Your task to perform on an android device: find photos in the google photos app Image 0: 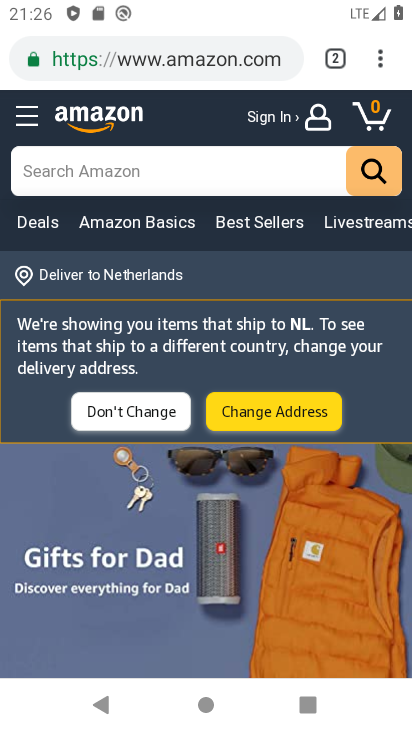
Step 0: press home button
Your task to perform on an android device: find photos in the google photos app Image 1: 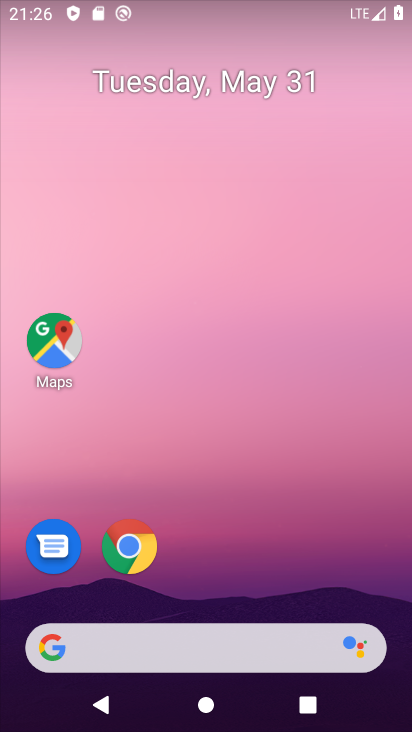
Step 1: drag from (400, 674) to (362, 203)
Your task to perform on an android device: find photos in the google photos app Image 2: 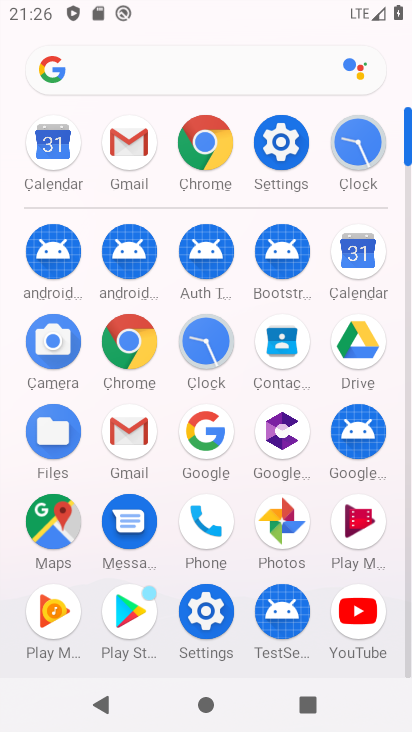
Step 2: click (290, 539)
Your task to perform on an android device: find photos in the google photos app Image 3: 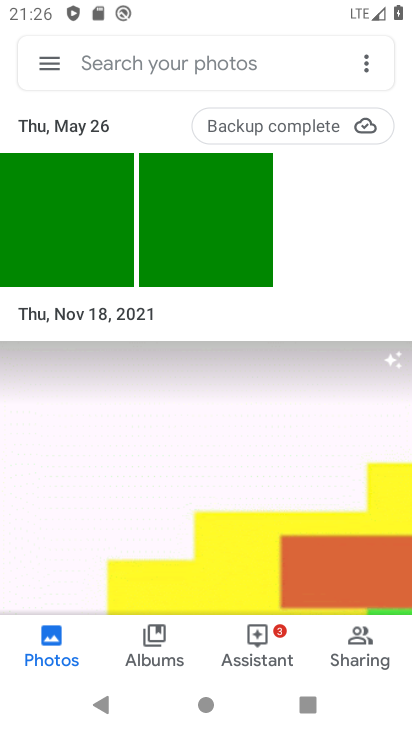
Step 3: task complete